Your task to perform on an android device: Go to sound settings Image 0: 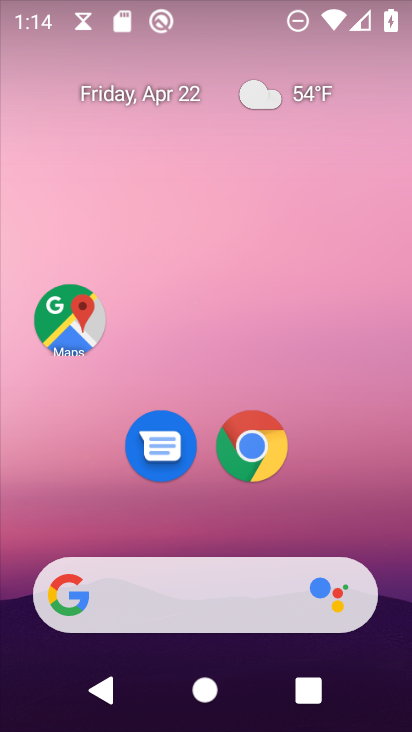
Step 0: drag from (377, 488) to (340, 244)
Your task to perform on an android device: Go to sound settings Image 1: 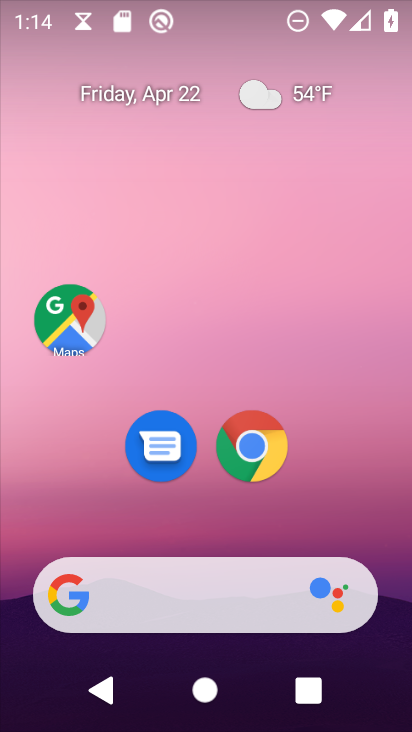
Step 1: drag from (387, 518) to (320, 236)
Your task to perform on an android device: Go to sound settings Image 2: 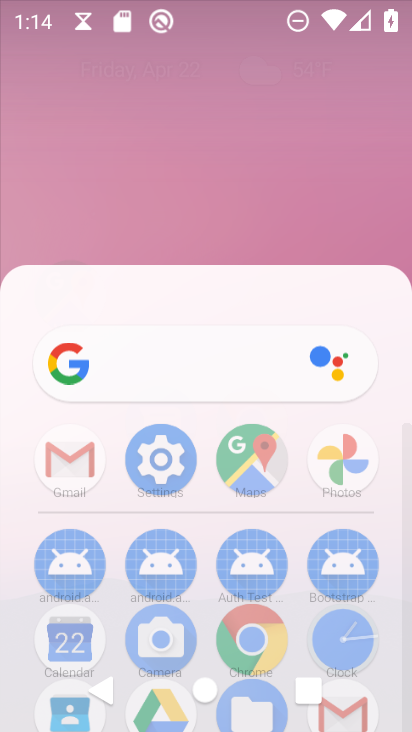
Step 2: drag from (350, 310) to (287, 174)
Your task to perform on an android device: Go to sound settings Image 3: 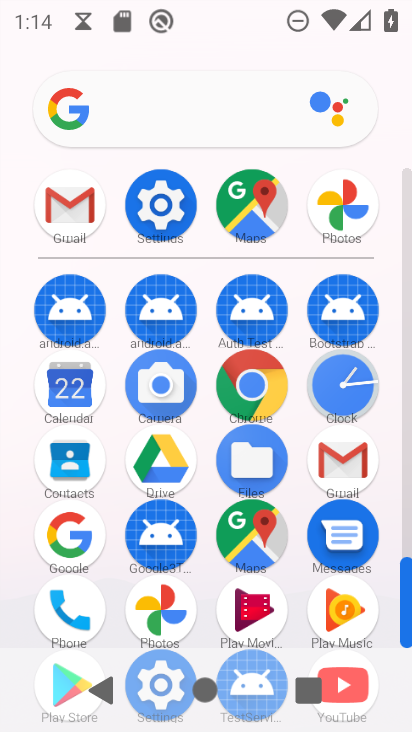
Step 3: click (170, 216)
Your task to perform on an android device: Go to sound settings Image 4: 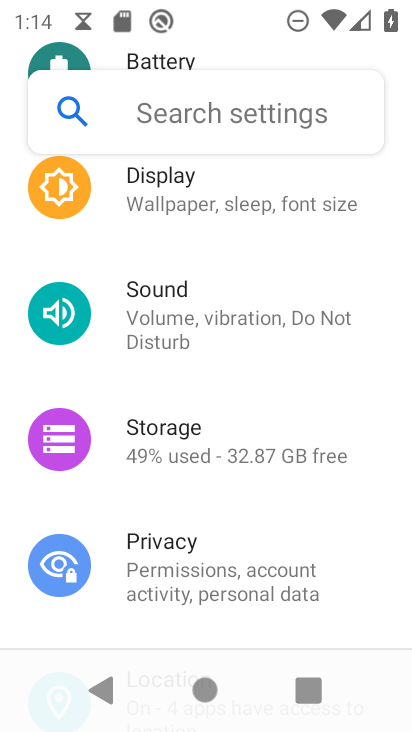
Step 4: click (211, 305)
Your task to perform on an android device: Go to sound settings Image 5: 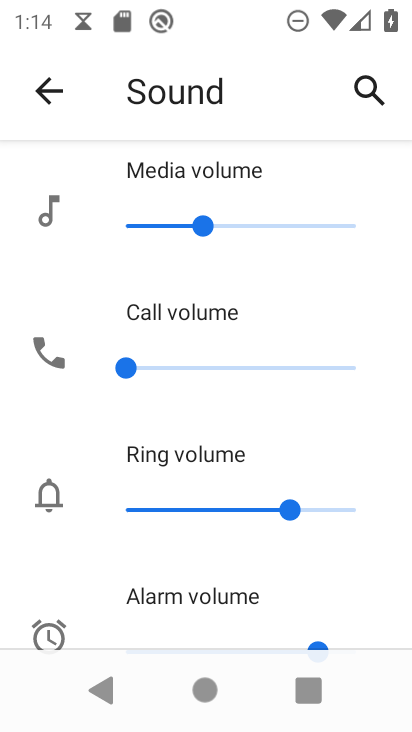
Step 5: task complete